Your task to perform on an android device: move a message to another label in the gmail app Image 0: 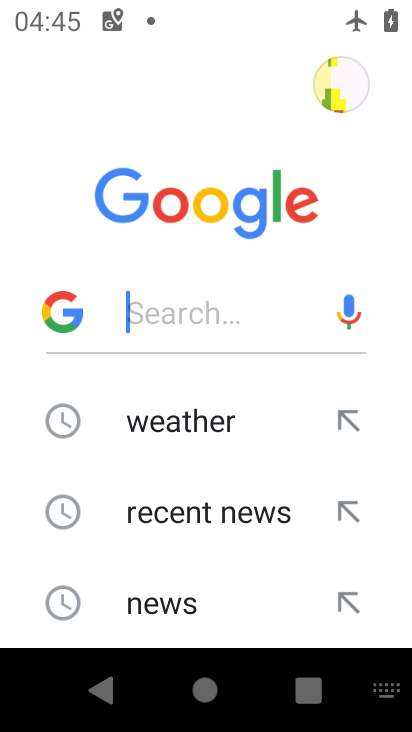
Step 0: press home button
Your task to perform on an android device: move a message to another label in the gmail app Image 1: 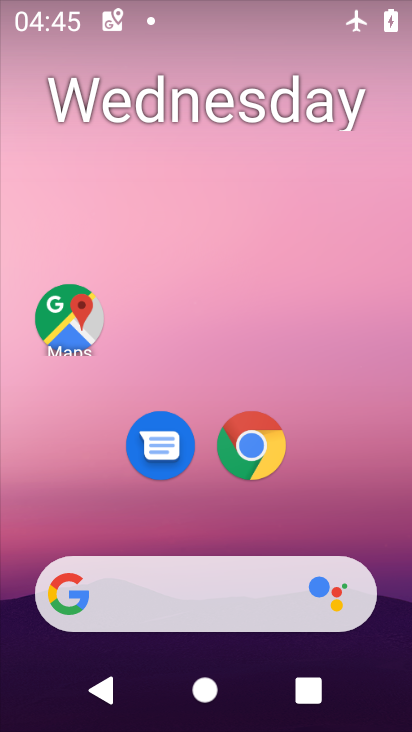
Step 1: drag from (173, 524) to (210, 161)
Your task to perform on an android device: move a message to another label in the gmail app Image 2: 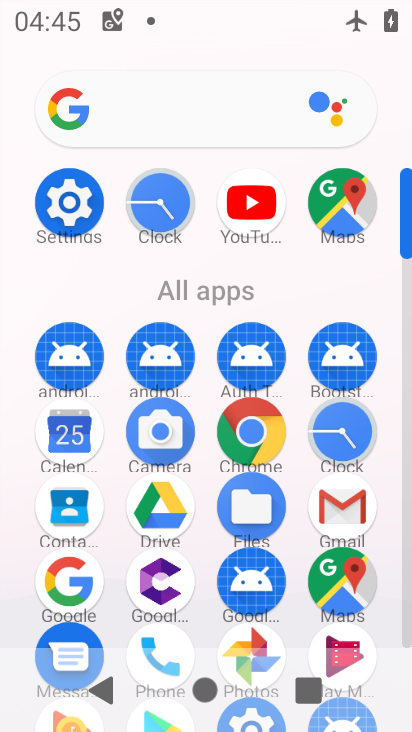
Step 2: click (342, 506)
Your task to perform on an android device: move a message to another label in the gmail app Image 3: 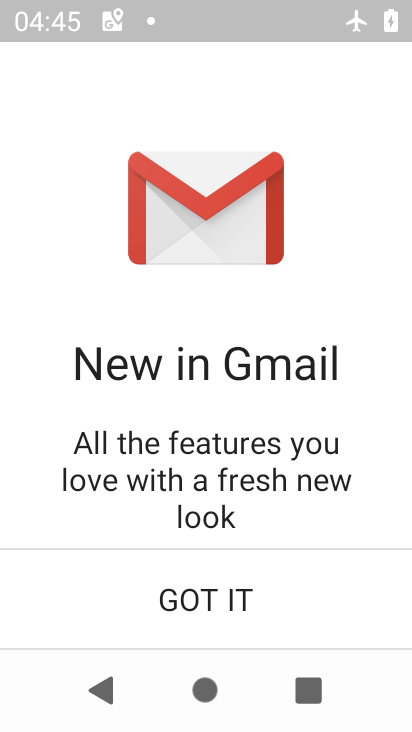
Step 3: click (225, 594)
Your task to perform on an android device: move a message to another label in the gmail app Image 4: 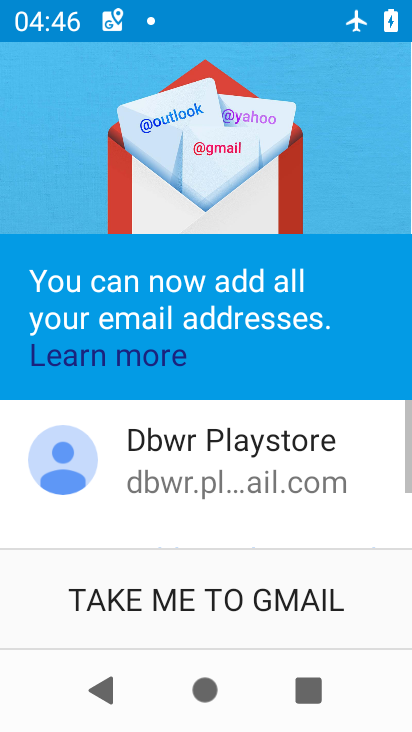
Step 4: click (225, 594)
Your task to perform on an android device: move a message to another label in the gmail app Image 5: 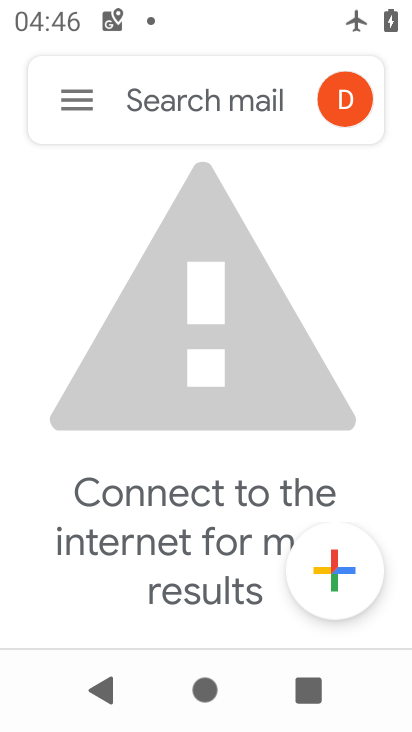
Step 5: drag from (184, 14) to (147, 456)
Your task to perform on an android device: move a message to another label in the gmail app Image 6: 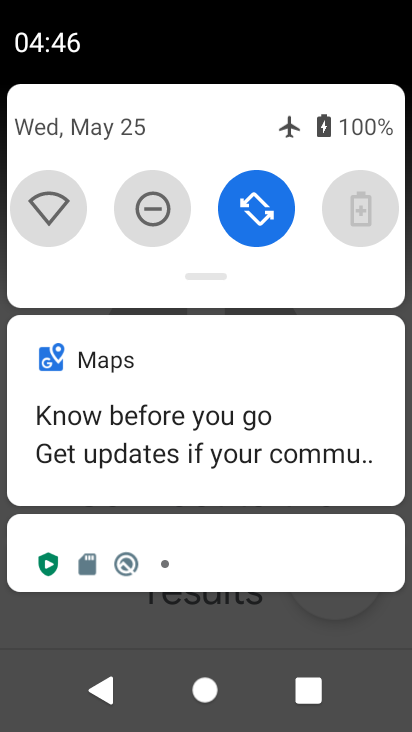
Step 6: drag from (213, 146) to (150, 726)
Your task to perform on an android device: move a message to another label in the gmail app Image 7: 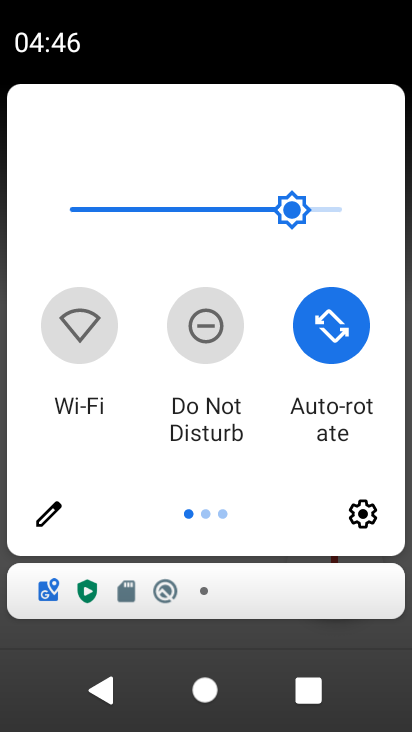
Step 7: click (374, 516)
Your task to perform on an android device: move a message to another label in the gmail app Image 8: 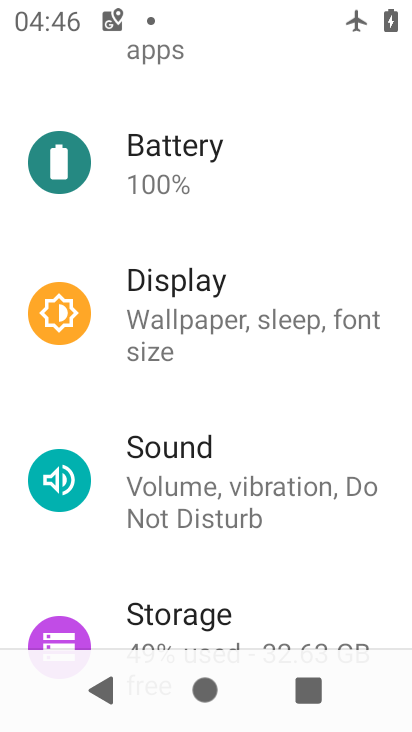
Step 8: drag from (228, 219) to (171, 631)
Your task to perform on an android device: move a message to another label in the gmail app Image 9: 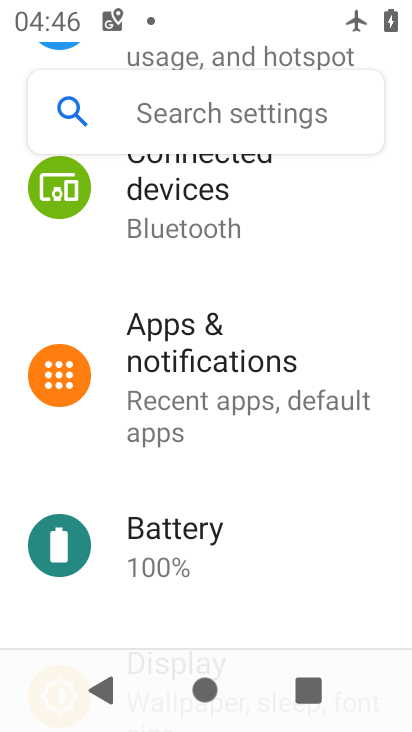
Step 9: drag from (163, 225) to (98, 671)
Your task to perform on an android device: move a message to another label in the gmail app Image 10: 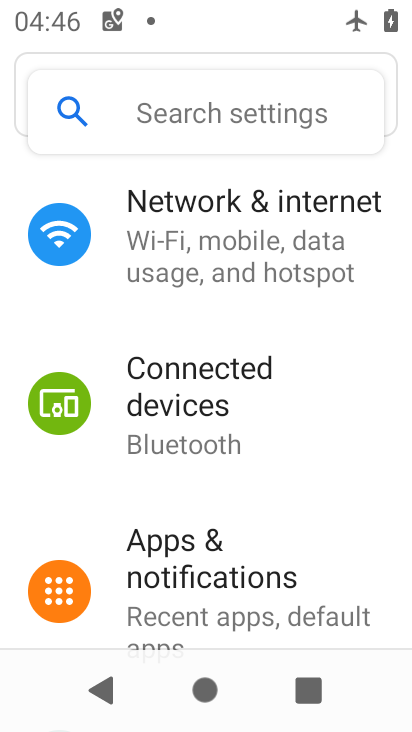
Step 10: click (266, 207)
Your task to perform on an android device: move a message to another label in the gmail app Image 11: 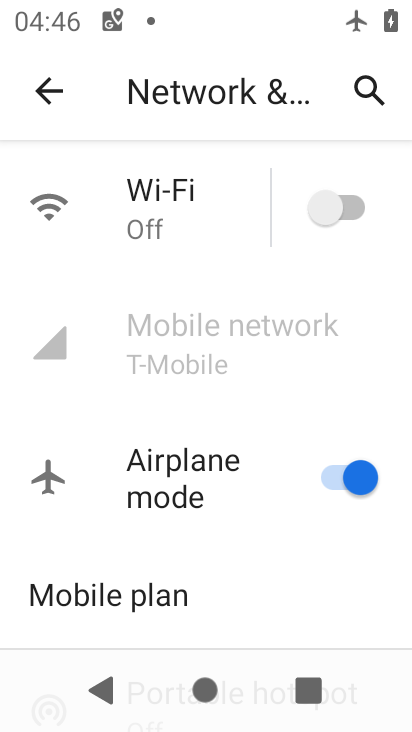
Step 11: click (339, 479)
Your task to perform on an android device: move a message to another label in the gmail app Image 12: 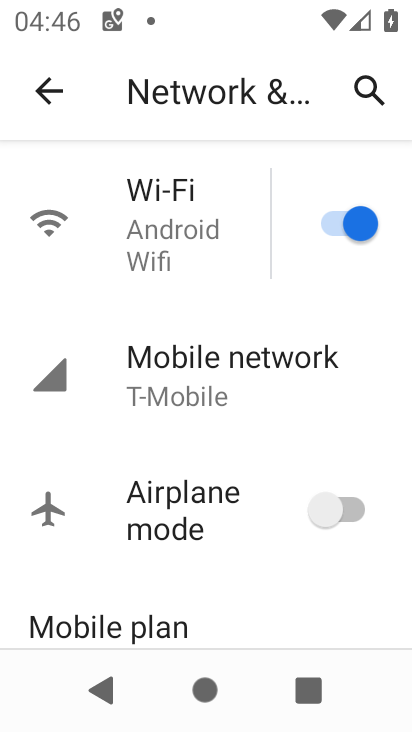
Step 12: task complete